Your task to perform on an android device: Check the weather Image 0: 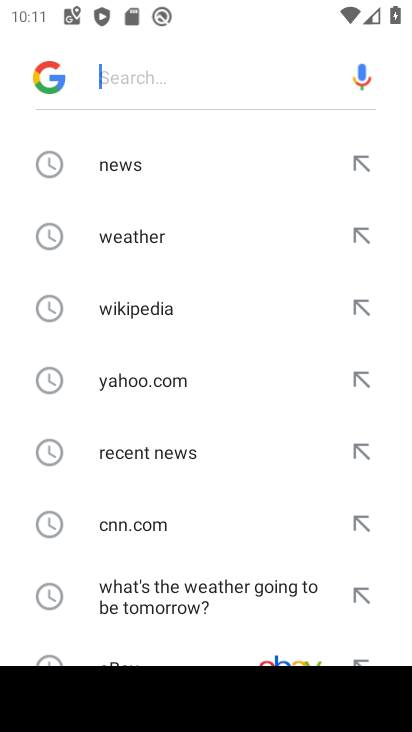
Step 0: type " weather"
Your task to perform on an android device: Check the weather Image 1: 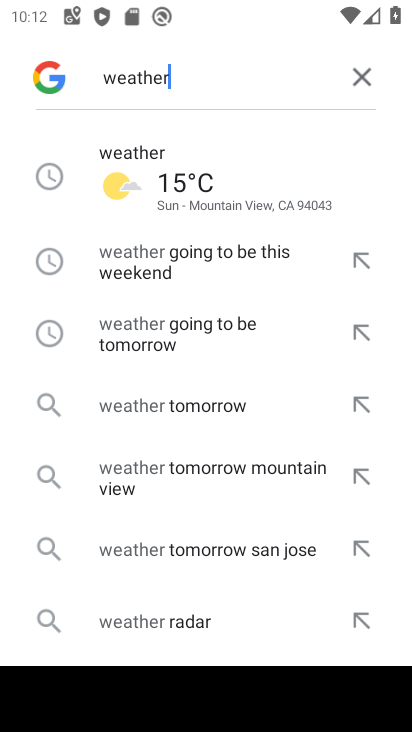
Step 1: click (150, 184)
Your task to perform on an android device: Check the weather Image 2: 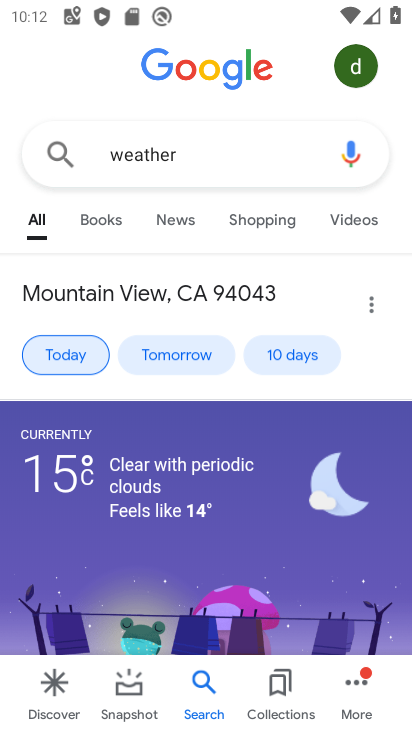
Step 2: task complete